Your task to perform on an android device: show emergency info Image 0: 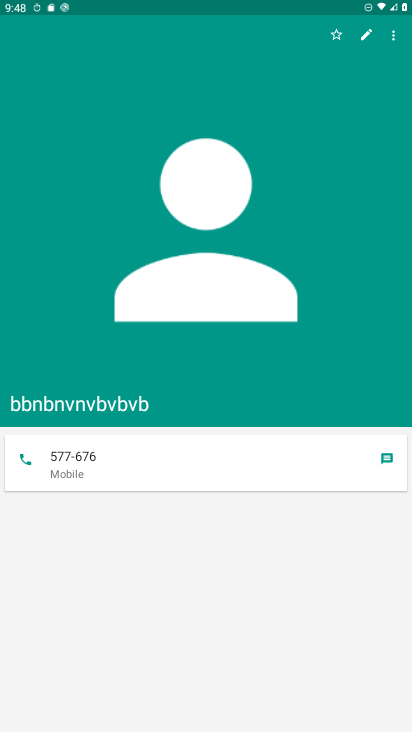
Step 0: press home button
Your task to perform on an android device: show emergency info Image 1: 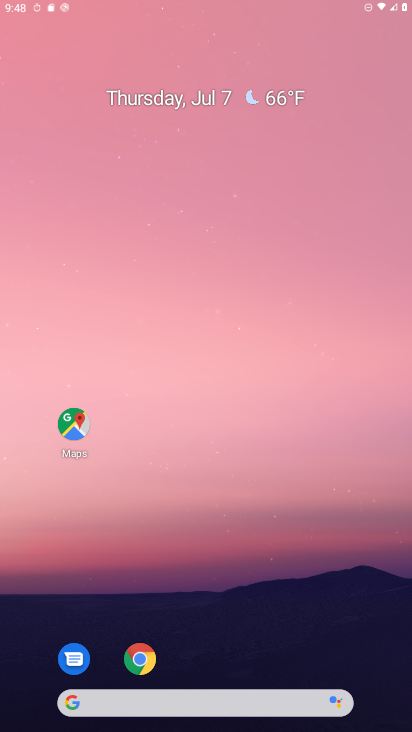
Step 1: drag from (379, 689) to (218, 38)
Your task to perform on an android device: show emergency info Image 2: 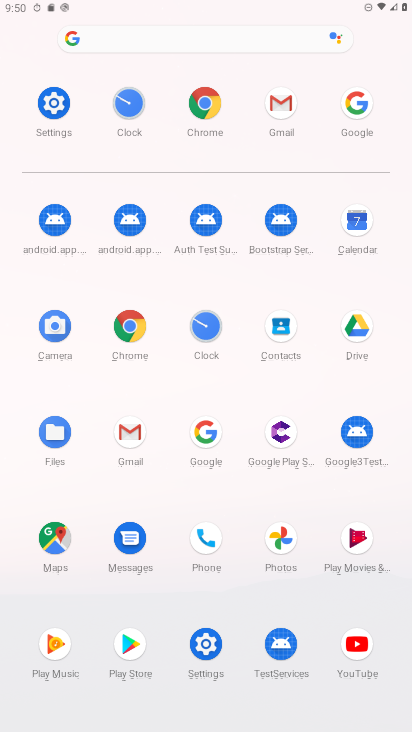
Step 2: click (198, 655)
Your task to perform on an android device: show emergency info Image 3: 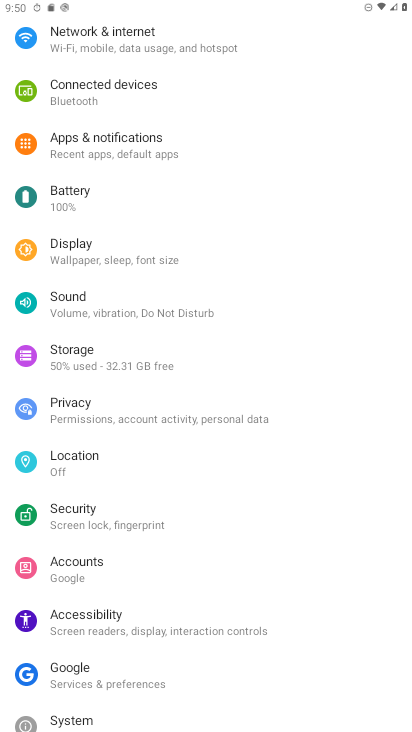
Step 3: drag from (110, 696) to (153, 307)
Your task to perform on an android device: show emergency info Image 4: 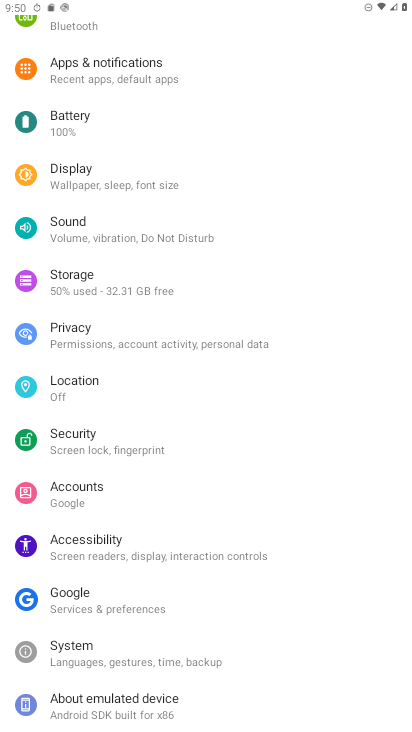
Step 4: click (128, 712)
Your task to perform on an android device: show emergency info Image 5: 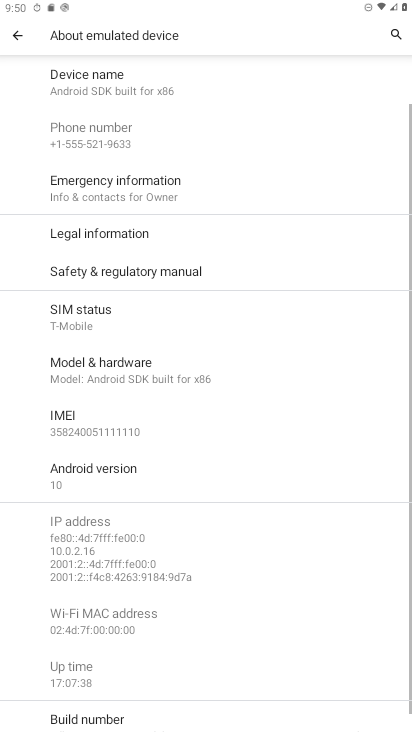
Step 5: click (121, 181)
Your task to perform on an android device: show emergency info Image 6: 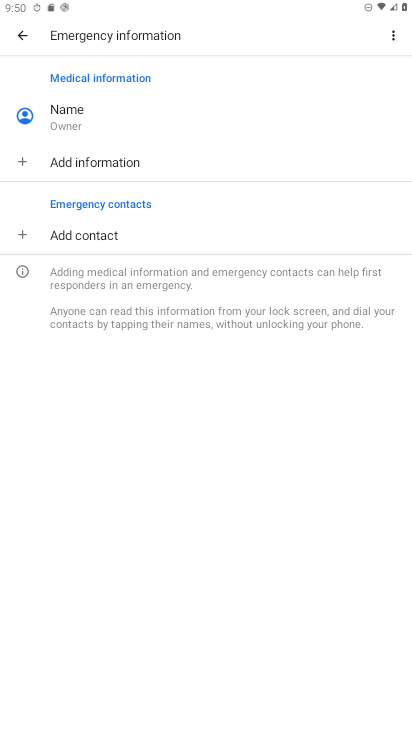
Step 6: task complete